Your task to perform on an android device: change the clock display to digital Image 0: 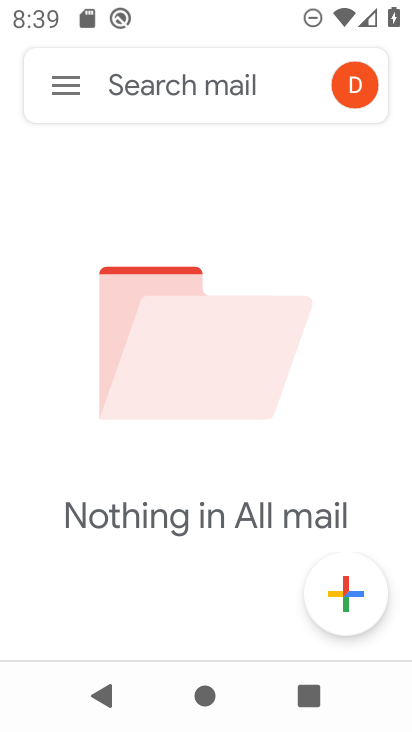
Step 0: press home button
Your task to perform on an android device: change the clock display to digital Image 1: 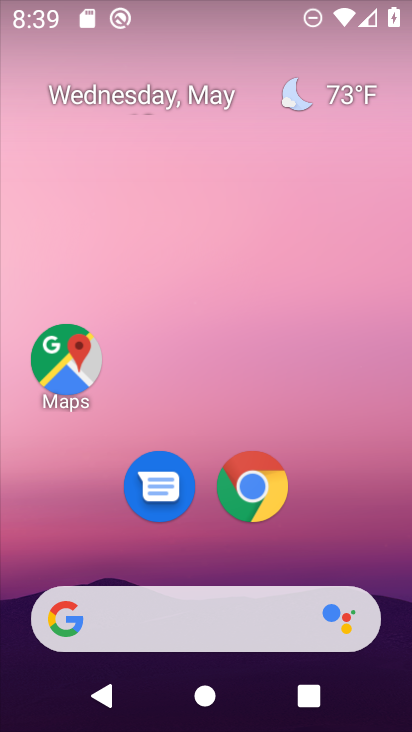
Step 1: drag from (398, 618) to (346, 207)
Your task to perform on an android device: change the clock display to digital Image 2: 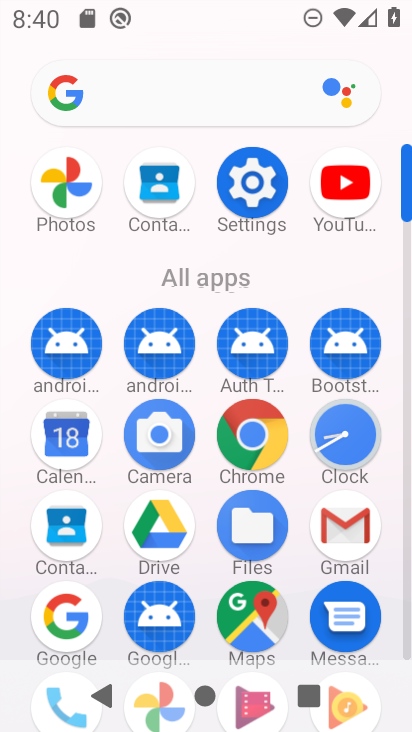
Step 2: click (408, 643)
Your task to perform on an android device: change the clock display to digital Image 3: 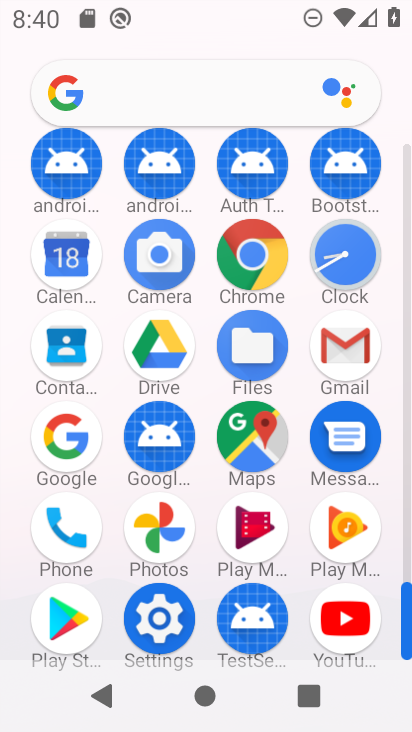
Step 3: click (348, 248)
Your task to perform on an android device: change the clock display to digital Image 4: 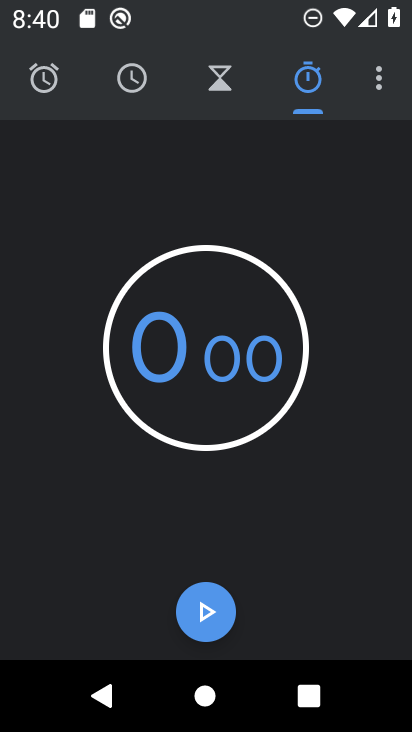
Step 4: click (375, 84)
Your task to perform on an android device: change the clock display to digital Image 5: 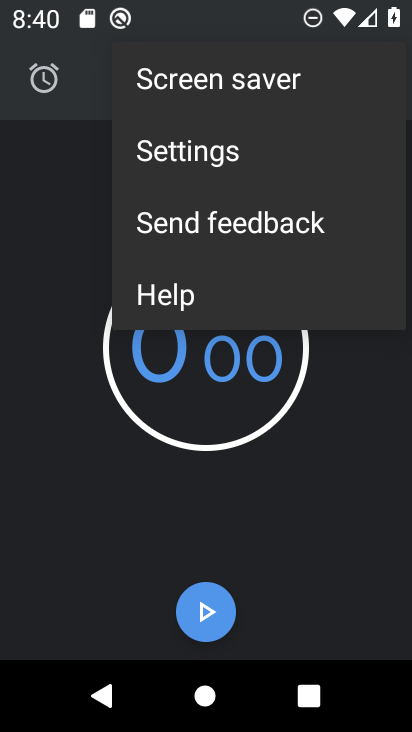
Step 5: click (186, 135)
Your task to perform on an android device: change the clock display to digital Image 6: 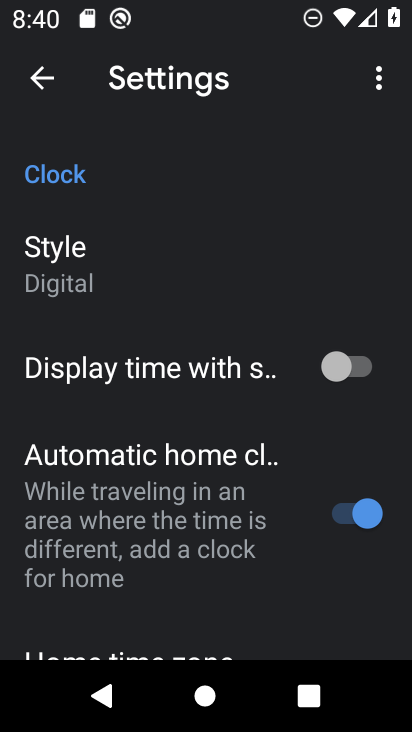
Step 6: click (62, 269)
Your task to perform on an android device: change the clock display to digital Image 7: 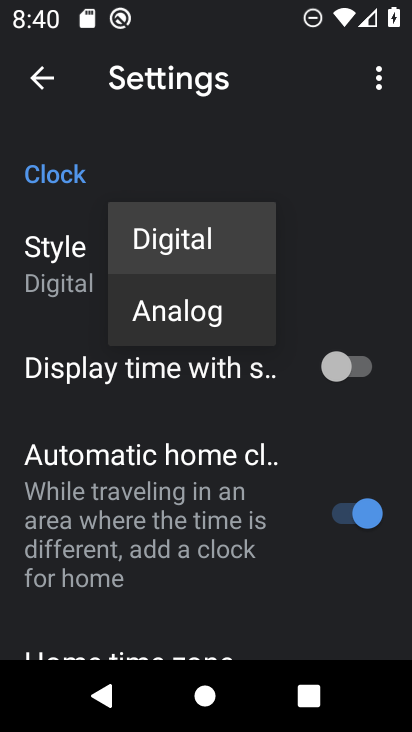
Step 7: task complete